Your task to perform on an android device: turn on sleep mode Image 0: 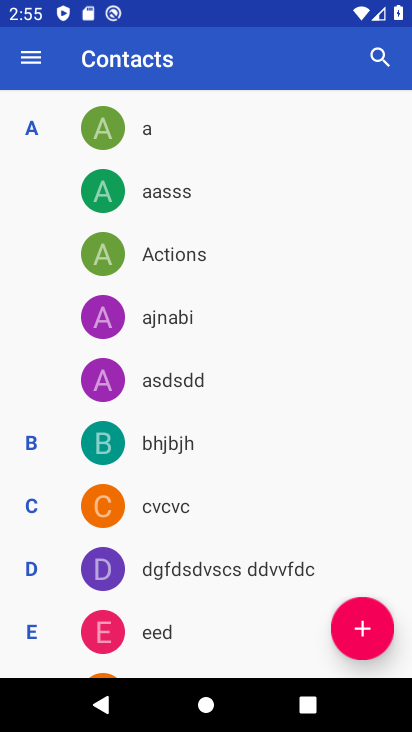
Step 0: press home button
Your task to perform on an android device: turn on sleep mode Image 1: 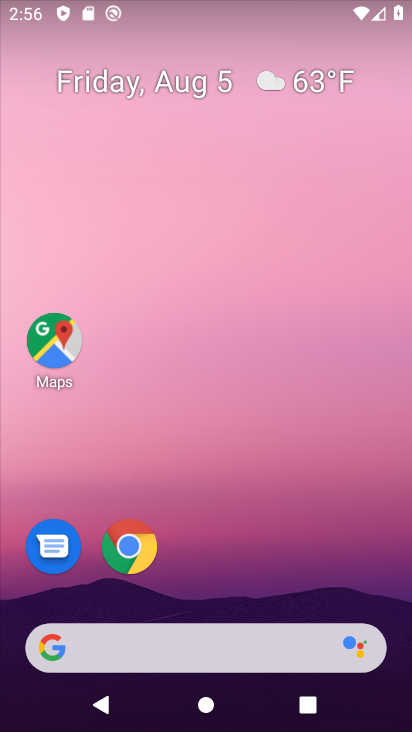
Step 1: press home button
Your task to perform on an android device: turn on sleep mode Image 2: 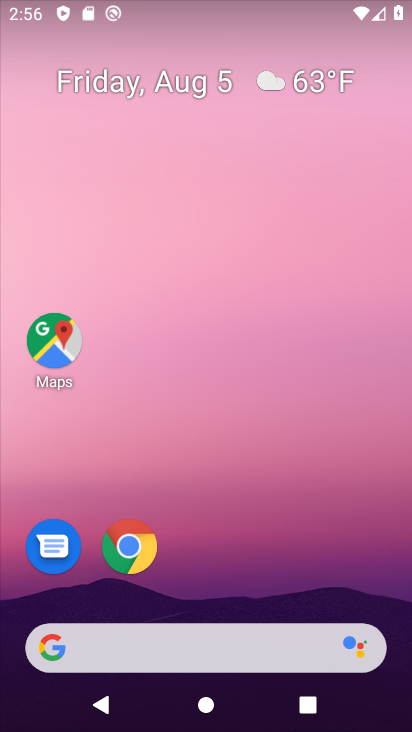
Step 2: drag from (327, 590) to (348, 68)
Your task to perform on an android device: turn on sleep mode Image 3: 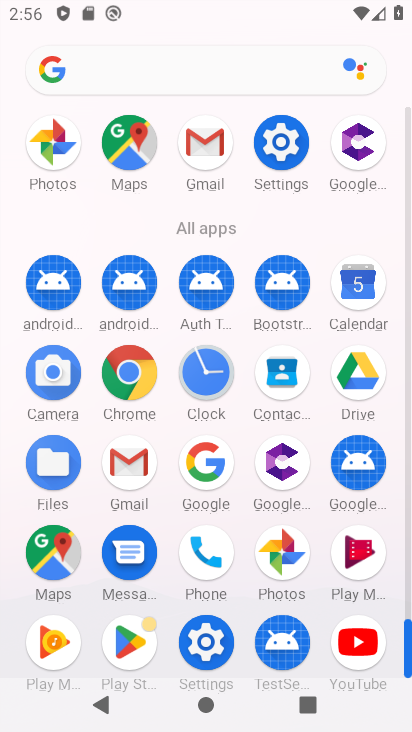
Step 3: click (282, 139)
Your task to perform on an android device: turn on sleep mode Image 4: 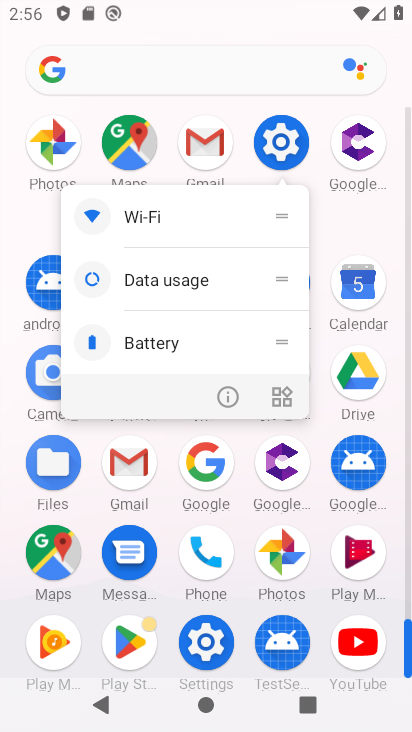
Step 4: click (285, 138)
Your task to perform on an android device: turn on sleep mode Image 5: 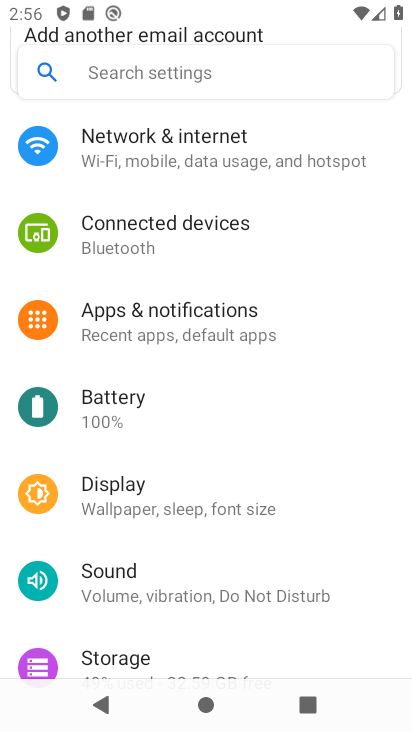
Step 5: drag from (363, 476) to (381, 235)
Your task to perform on an android device: turn on sleep mode Image 6: 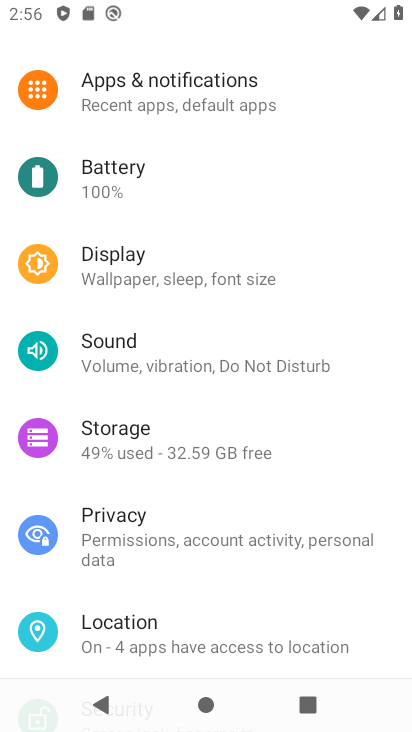
Step 6: click (195, 255)
Your task to perform on an android device: turn on sleep mode Image 7: 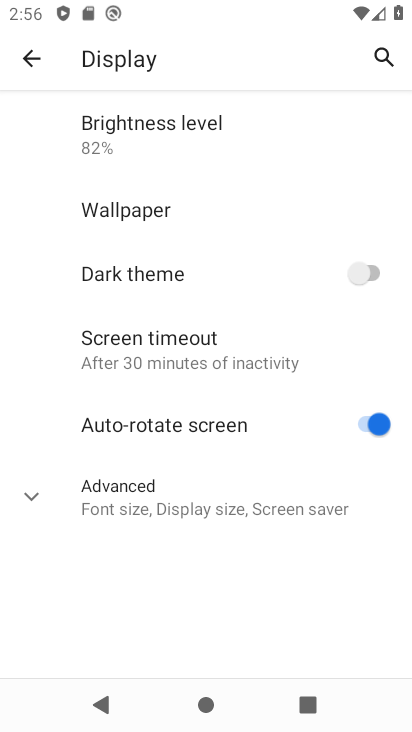
Step 7: click (264, 492)
Your task to perform on an android device: turn on sleep mode Image 8: 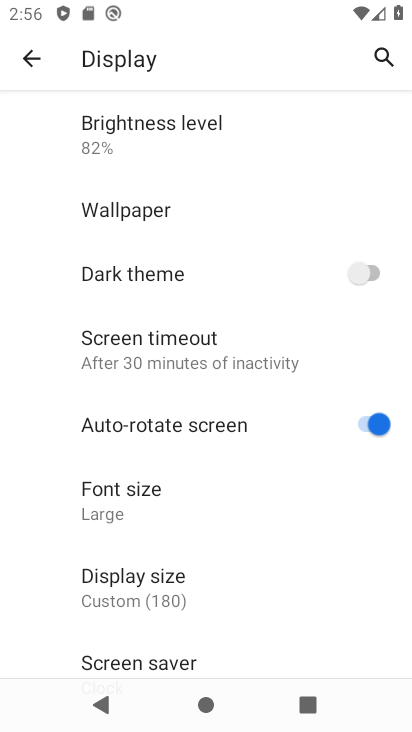
Step 8: task complete